Your task to perform on an android device: open device folders in google photos Image 0: 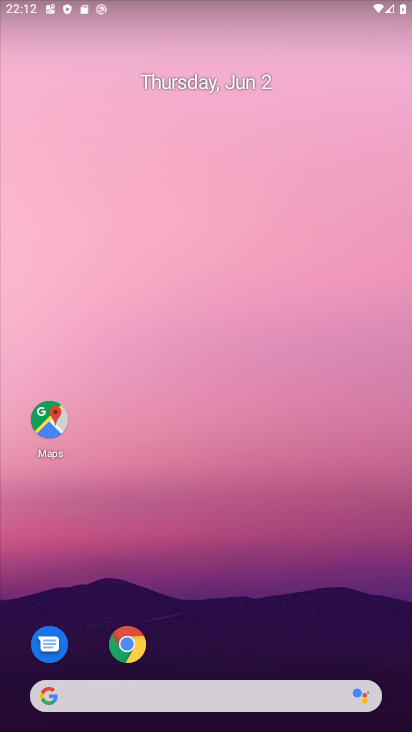
Step 0: press home button
Your task to perform on an android device: open device folders in google photos Image 1: 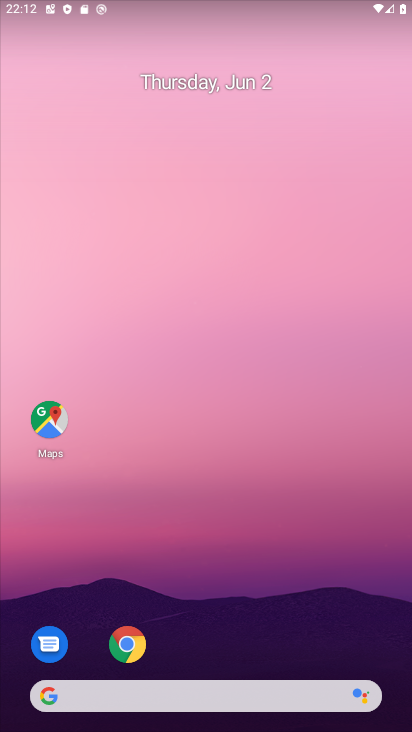
Step 1: drag from (211, 591) to (221, 266)
Your task to perform on an android device: open device folders in google photos Image 2: 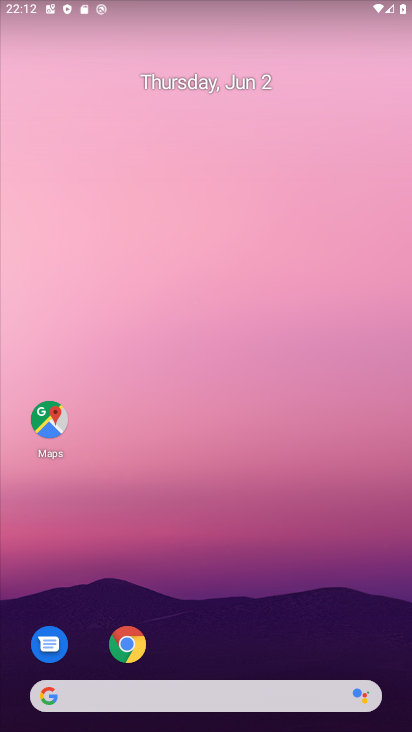
Step 2: drag from (228, 637) to (179, 292)
Your task to perform on an android device: open device folders in google photos Image 3: 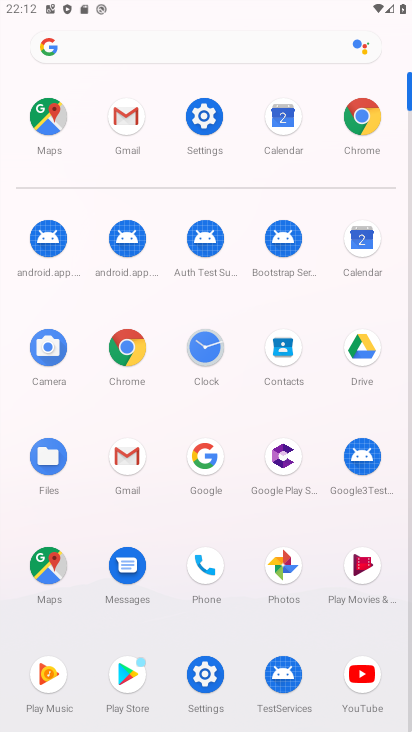
Step 3: click (209, 126)
Your task to perform on an android device: open device folders in google photos Image 4: 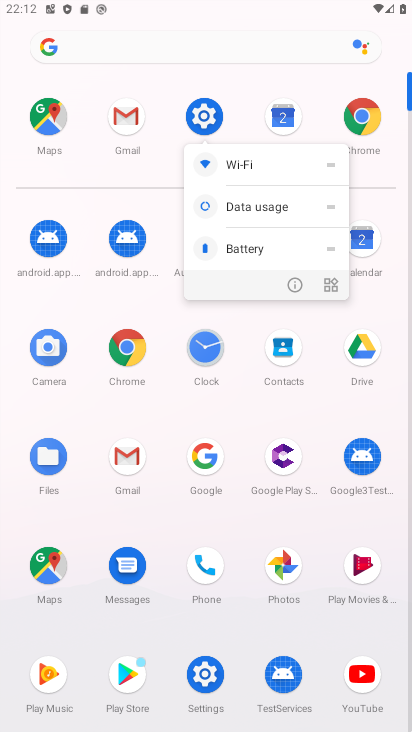
Step 4: click (201, 111)
Your task to perform on an android device: open device folders in google photos Image 5: 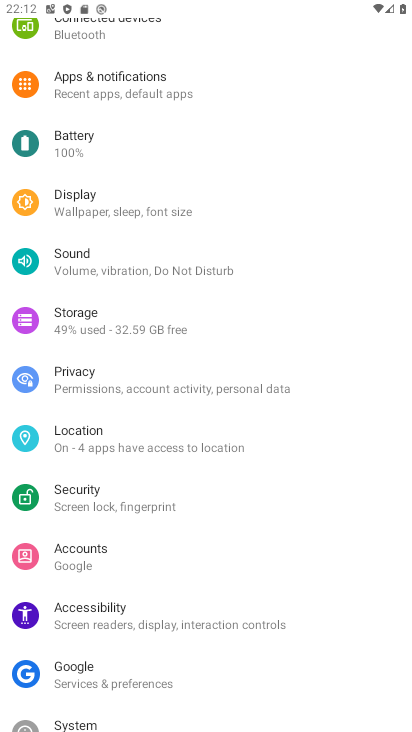
Step 5: drag from (181, 168) to (138, 390)
Your task to perform on an android device: open device folders in google photos Image 6: 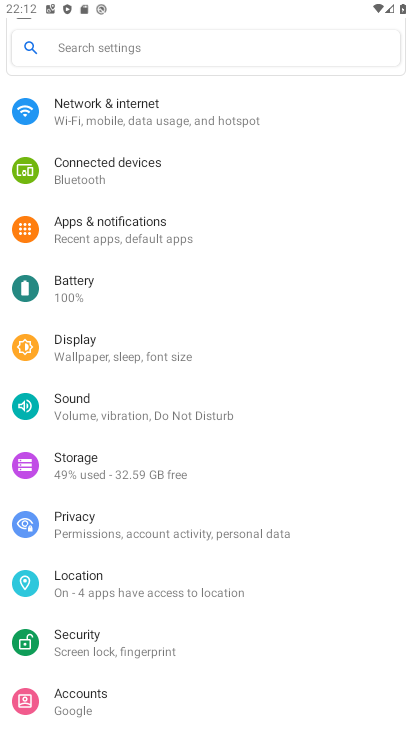
Step 6: drag from (149, 629) to (161, 255)
Your task to perform on an android device: open device folders in google photos Image 7: 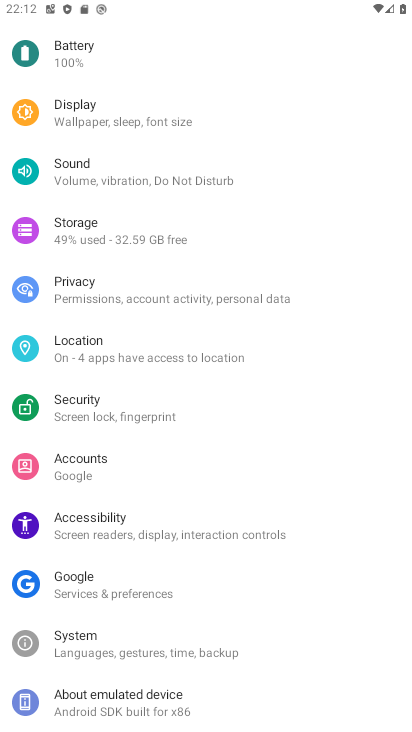
Step 7: drag from (133, 624) to (135, 285)
Your task to perform on an android device: open device folders in google photos Image 8: 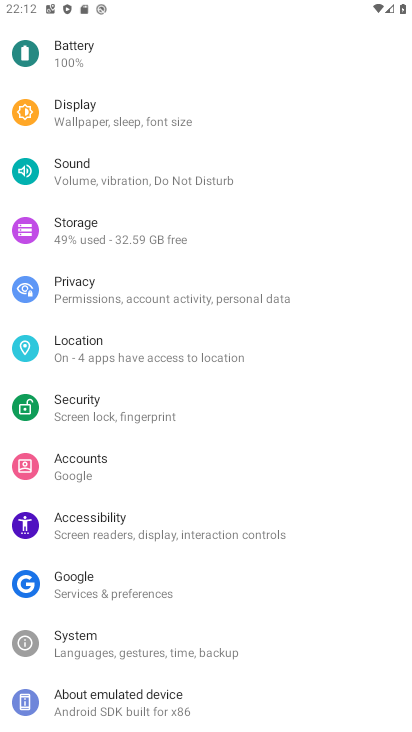
Step 8: click (109, 696)
Your task to perform on an android device: open device folders in google photos Image 9: 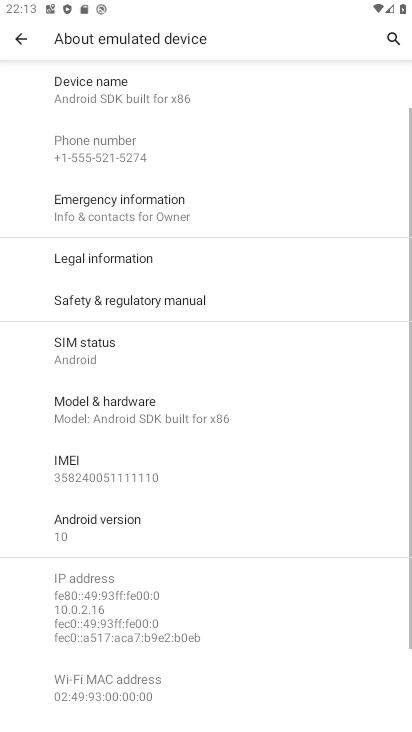
Step 9: click (124, 525)
Your task to perform on an android device: open device folders in google photos Image 10: 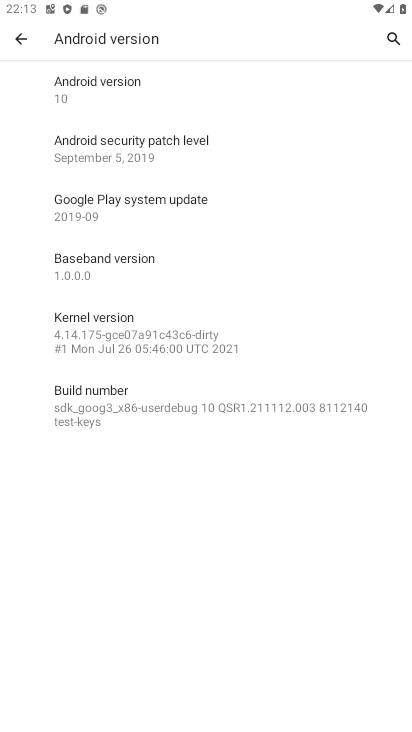
Step 10: task complete